Your task to perform on an android device: Open ESPN.com Image 0: 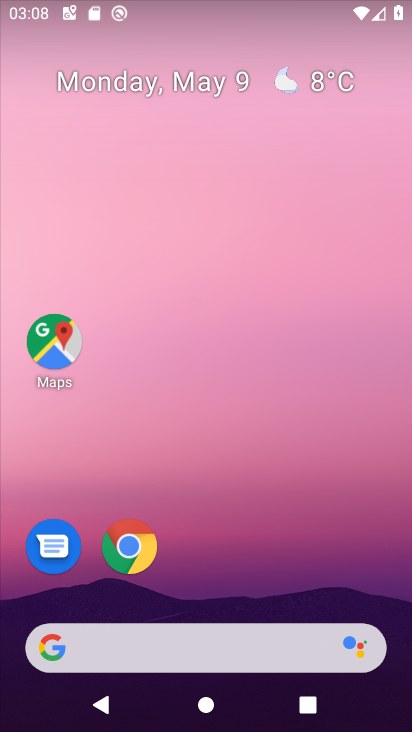
Step 0: click (217, 631)
Your task to perform on an android device: Open ESPN.com Image 1: 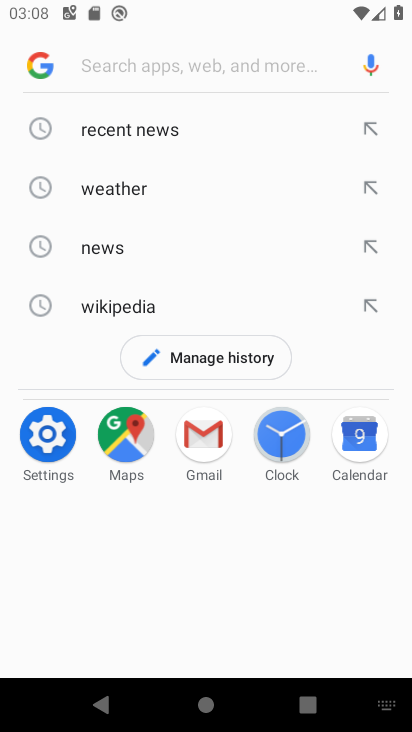
Step 1: type "espn.com"
Your task to perform on an android device: Open ESPN.com Image 2: 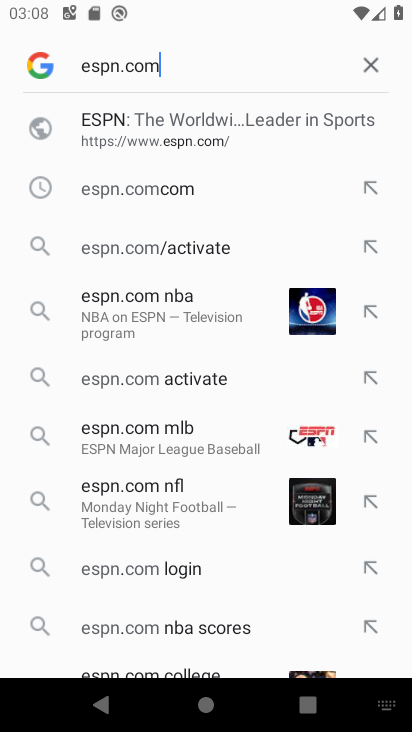
Step 2: click (50, 131)
Your task to perform on an android device: Open ESPN.com Image 3: 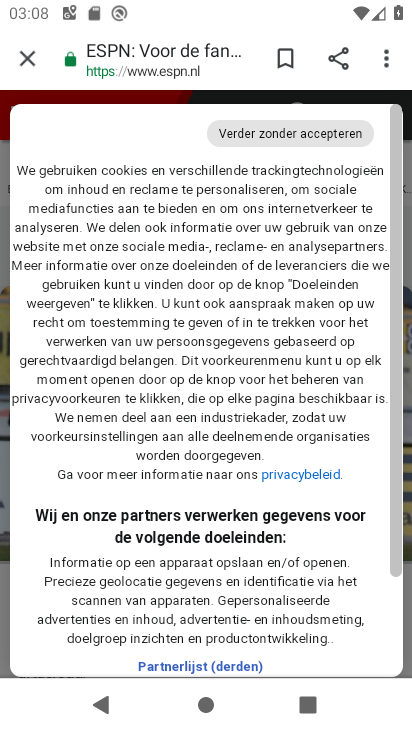
Step 3: task complete